Your task to perform on an android device: Open the Play Movies app and select the watchlist tab. Image 0: 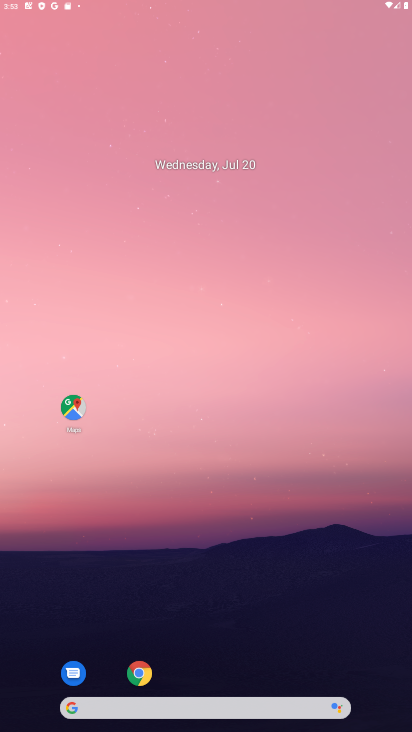
Step 0: press home button
Your task to perform on an android device: Open the Play Movies app and select the watchlist tab. Image 1: 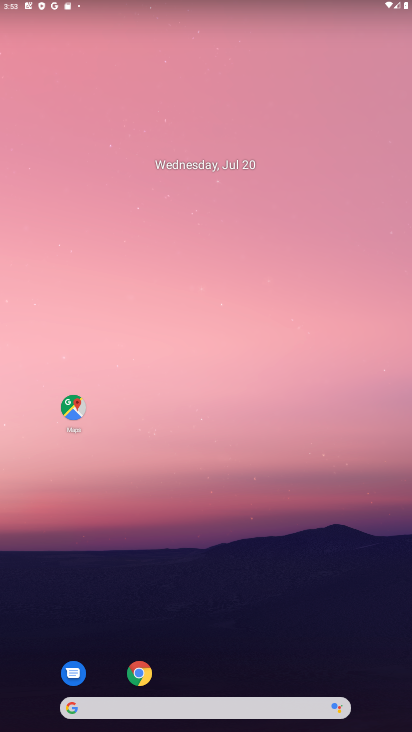
Step 1: drag from (221, 663) to (334, 137)
Your task to perform on an android device: Open the Play Movies app and select the watchlist tab. Image 2: 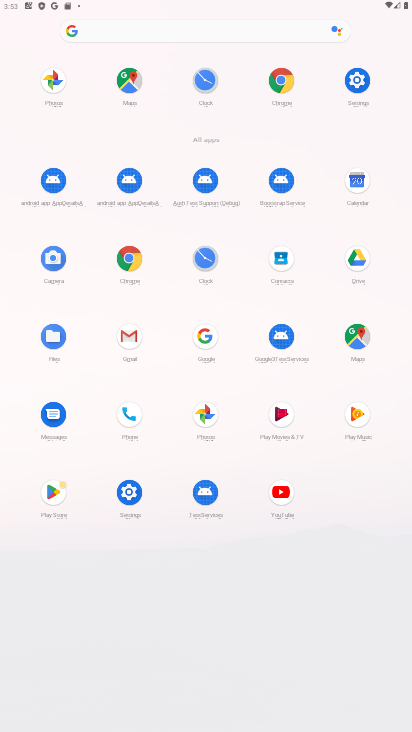
Step 2: click (283, 406)
Your task to perform on an android device: Open the Play Movies app and select the watchlist tab. Image 3: 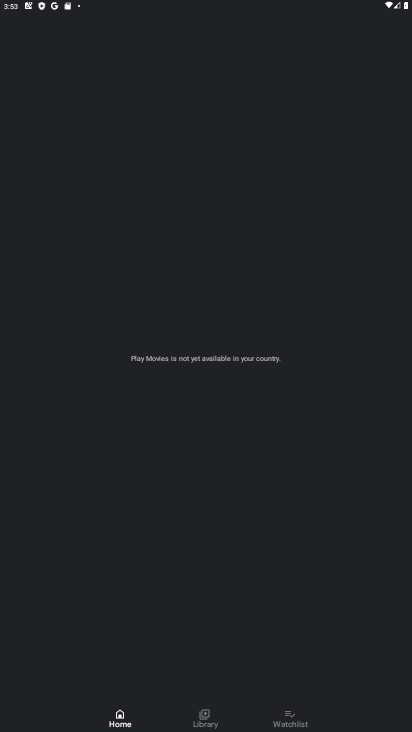
Step 3: click (290, 717)
Your task to perform on an android device: Open the Play Movies app and select the watchlist tab. Image 4: 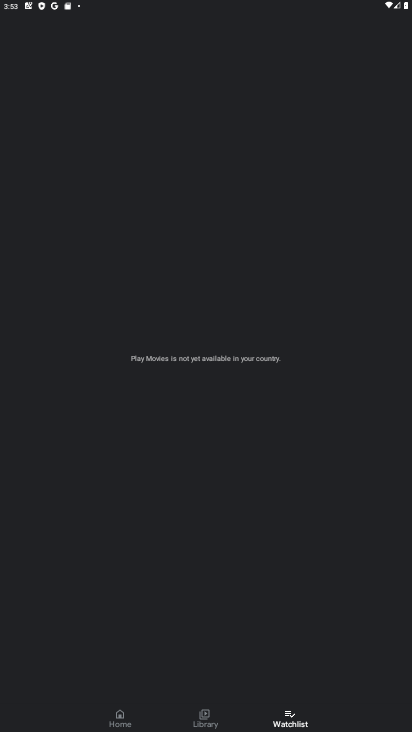
Step 4: task complete